Your task to perform on an android device: toggle wifi Image 0: 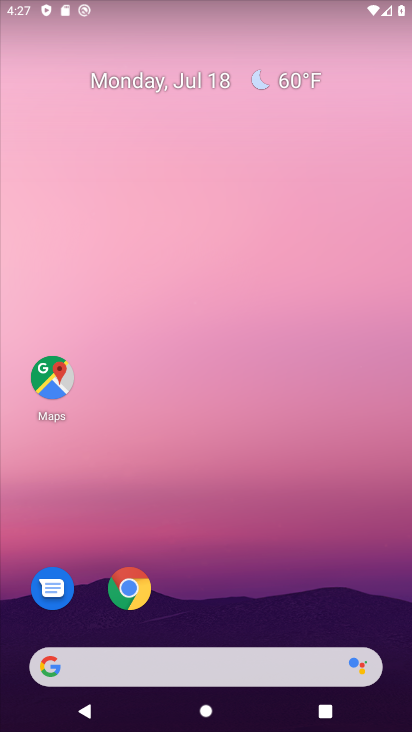
Step 0: drag from (212, 601) to (222, 0)
Your task to perform on an android device: toggle wifi Image 1: 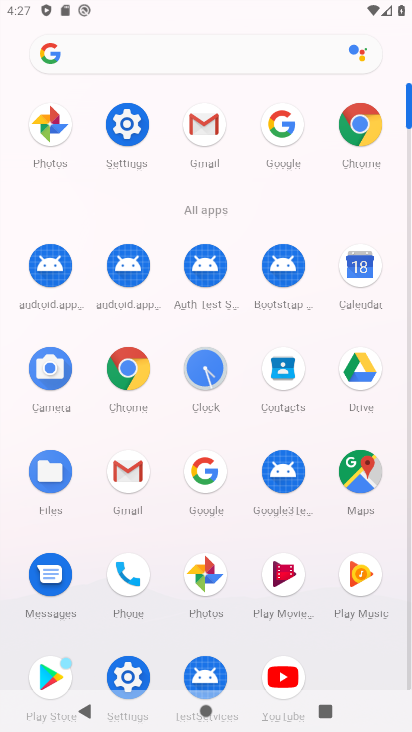
Step 1: drag from (168, 7) to (176, 376)
Your task to perform on an android device: toggle wifi Image 2: 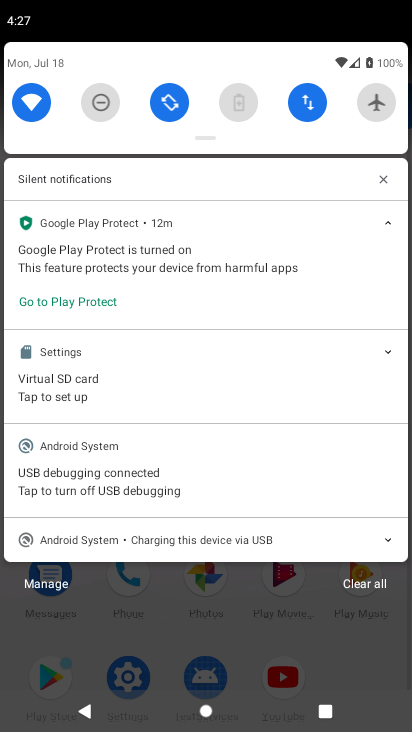
Step 2: click (32, 95)
Your task to perform on an android device: toggle wifi Image 3: 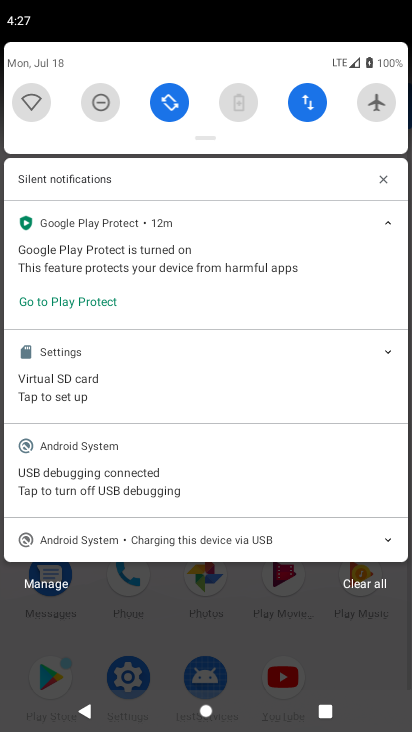
Step 3: task complete